Your task to perform on an android device: Install the ESPN app Image 0: 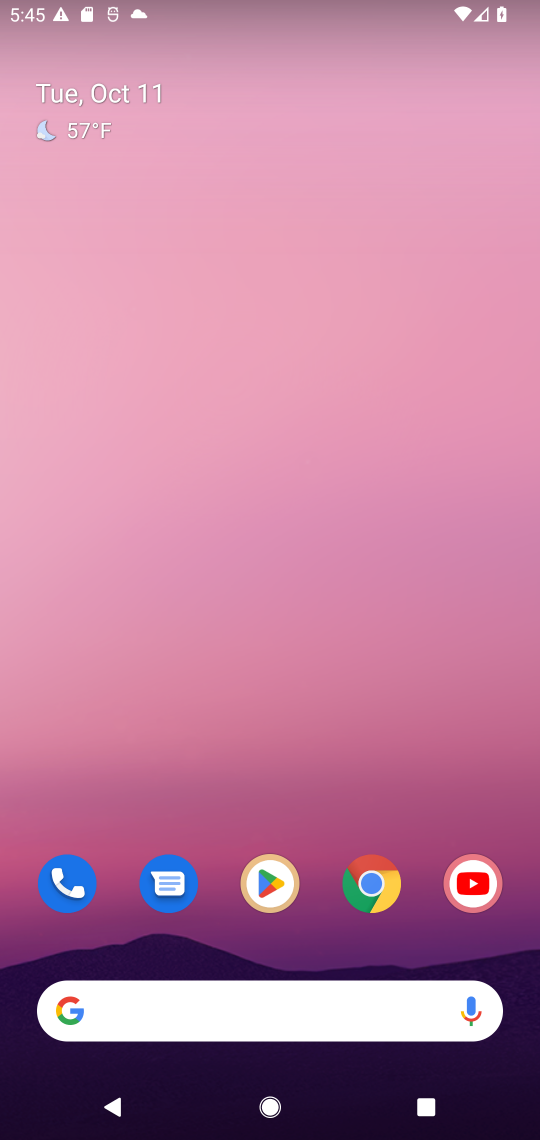
Step 0: drag from (314, 940) to (240, 4)
Your task to perform on an android device: Install the ESPN app Image 1: 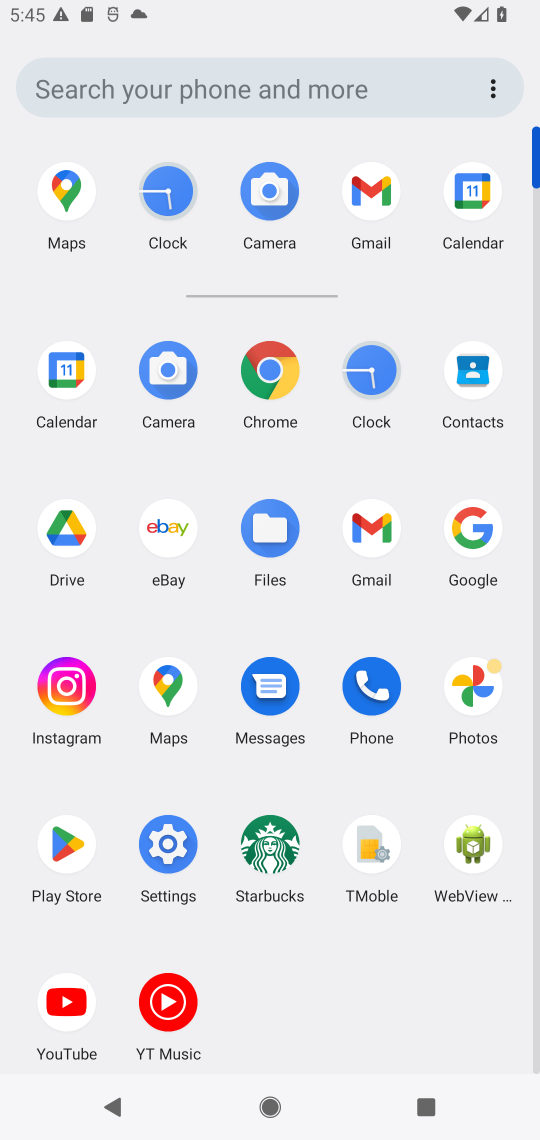
Step 1: click (61, 829)
Your task to perform on an android device: Install the ESPN app Image 2: 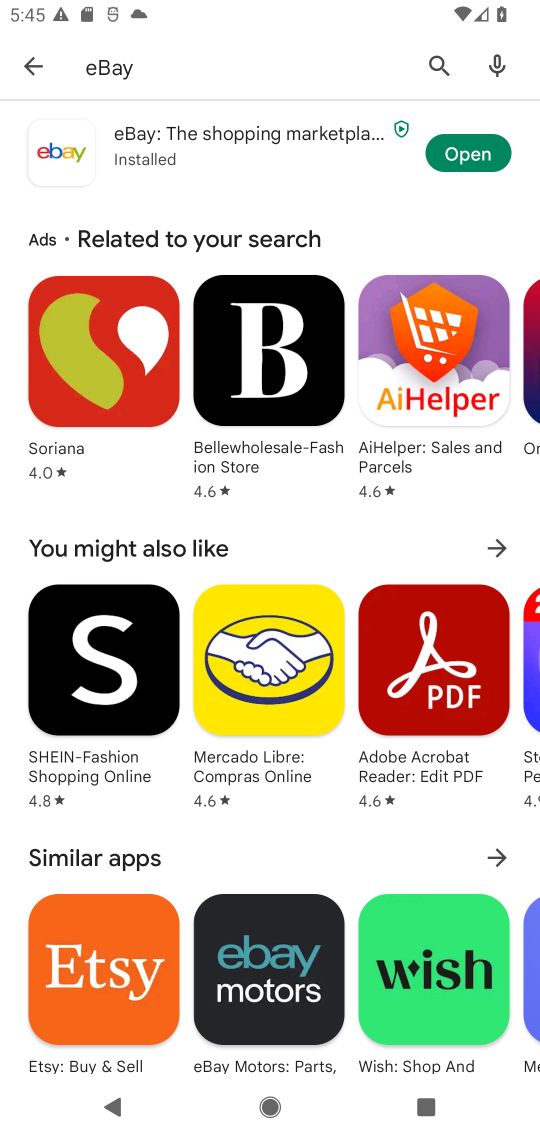
Step 2: click (249, 68)
Your task to perform on an android device: Install the ESPN app Image 3: 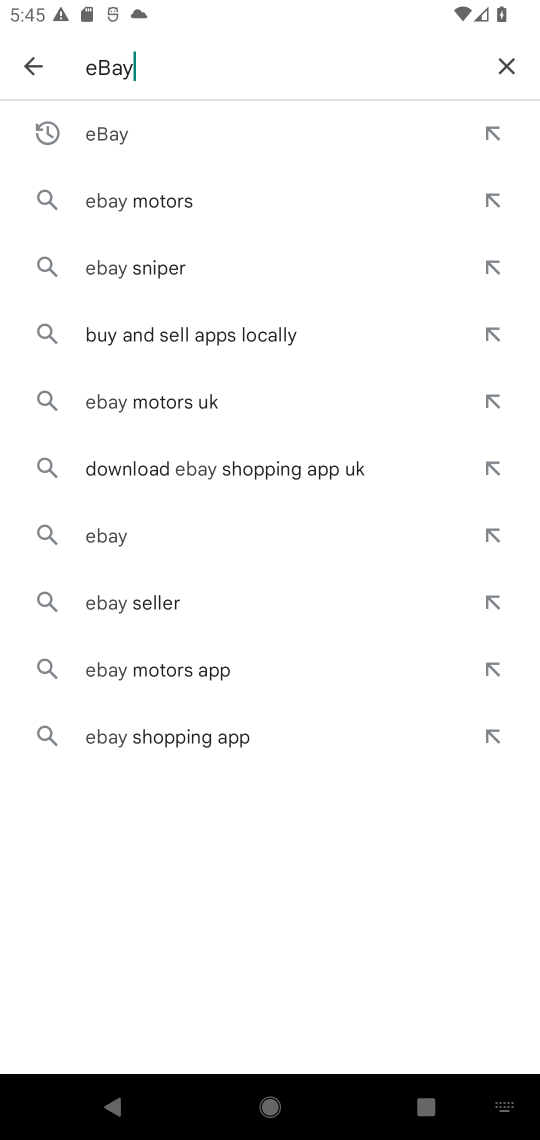
Step 3: click (501, 62)
Your task to perform on an android device: Install the ESPN app Image 4: 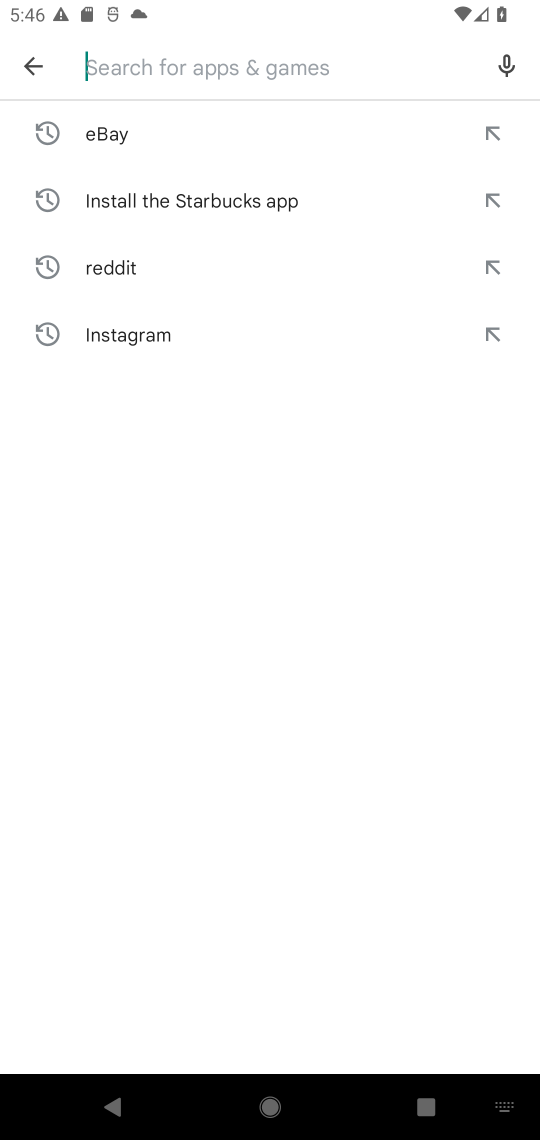
Step 4: type "Install the ESPN app"
Your task to perform on an android device: Install the ESPN app Image 5: 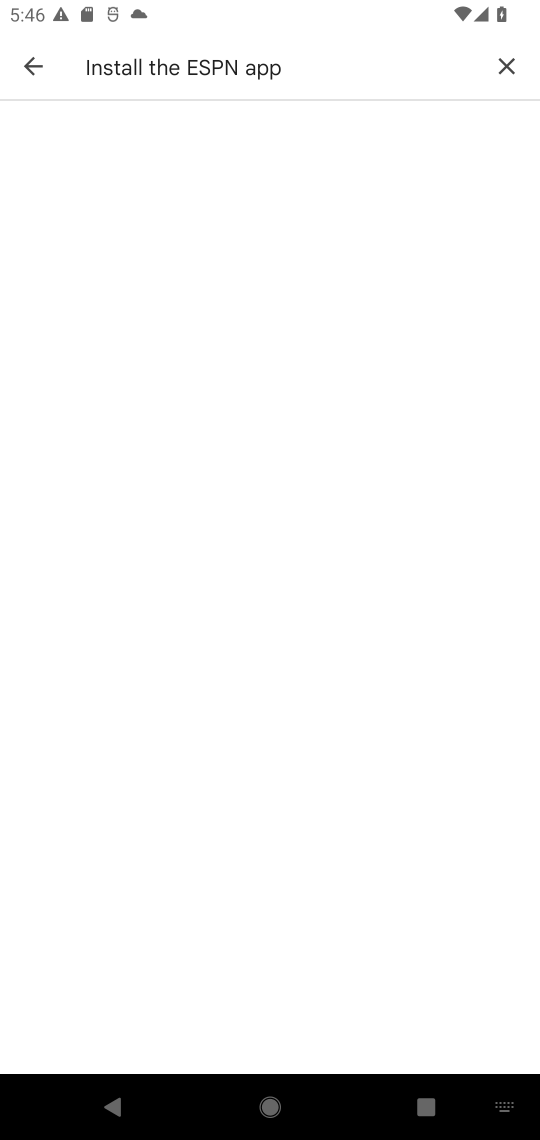
Step 5: press enter
Your task to perform on an android device: Install the ESPN app Image 6: 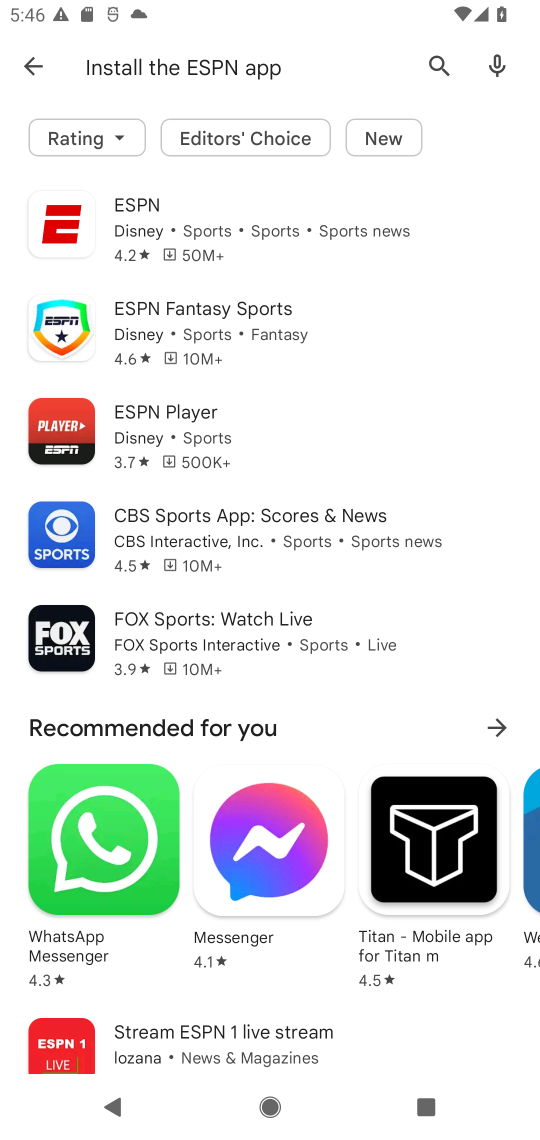
Step 6: click (158, 222)
Your task to perform on an android device: Install the ESPN app Image 7: 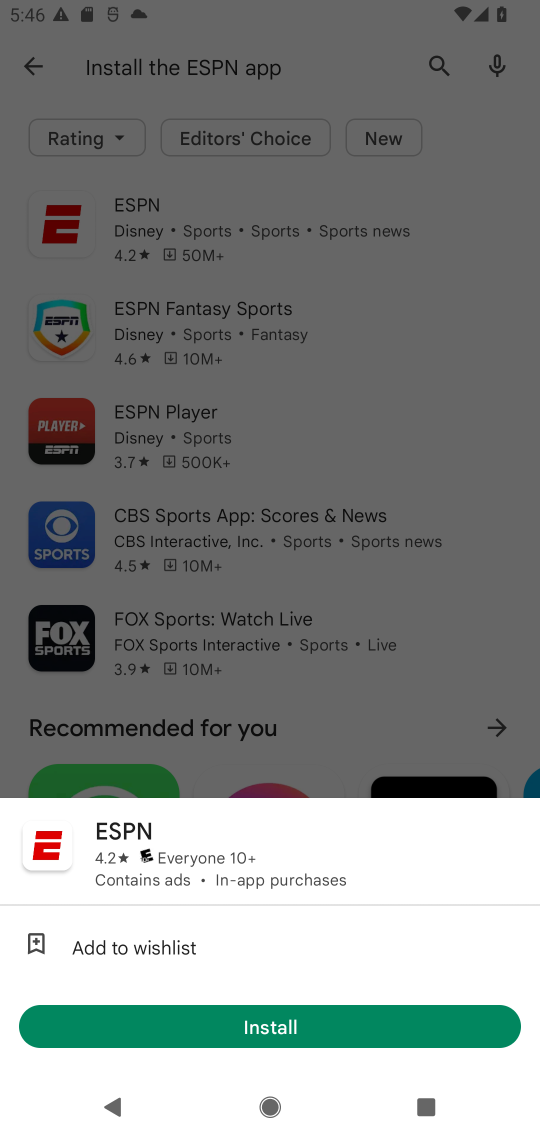
Step 7: click (282, 1022)
Your task to perform on an android device: Install the ESPN app Image 8: 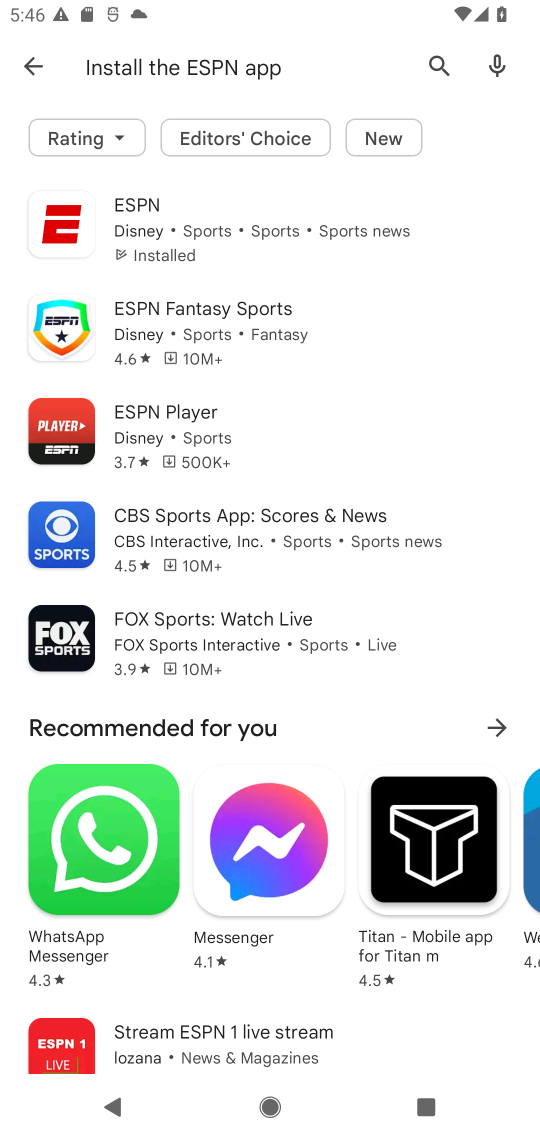
Step 8: task complete